Your task to perform on an android device: Search for vegetarian restaurants on Maps Image 0: 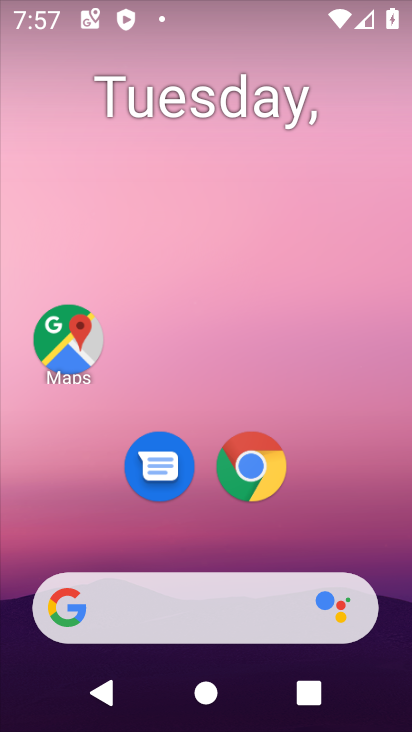
Step 0: press home button
Your task to perform on an android device: Search for vegetarian restaurants on Maps Image 1: 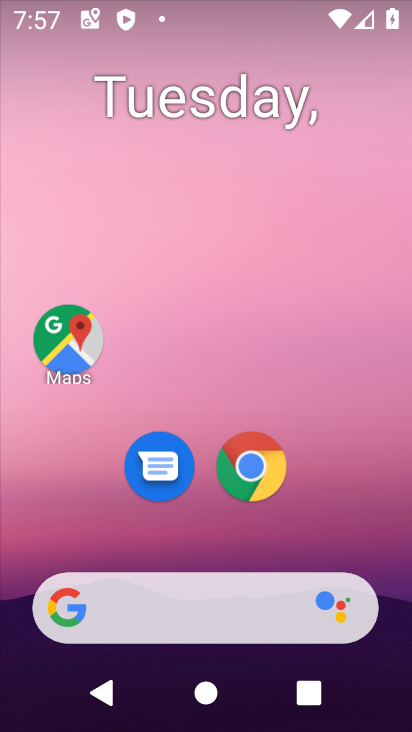
Step 1: click (68, 333)
Your task to perform on an android device: Search for vegetarian restaurants on Maps Image 2: 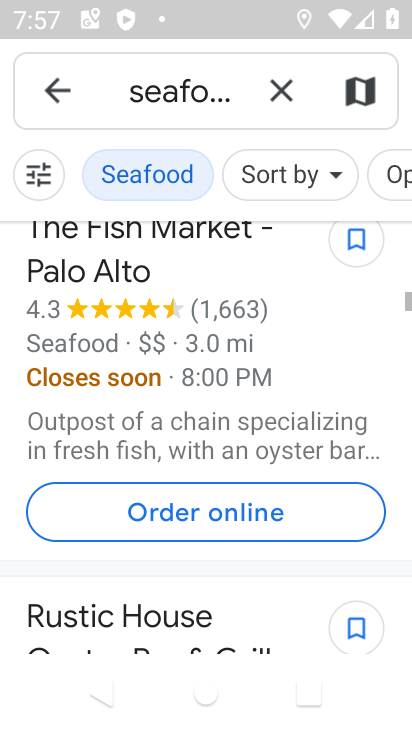
Step 2: click (280, 89)
Your task to perform on an android device: Search for vegetarian restaurants on Maps Image 3: 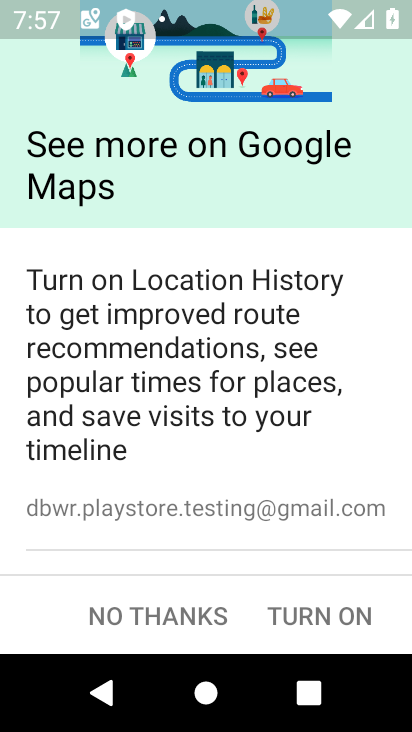
Step 3: click (323, 618)
Your task to perform on an android device: Search for vegetarian restaurants on Maps Image 4: 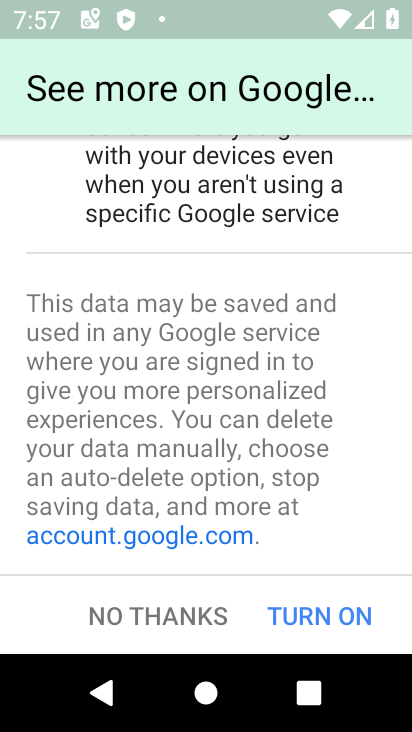
Step 4: click (325, 619)
Your task to perform on an android device: Search for vegetarian restaurants on Maps Image 5: 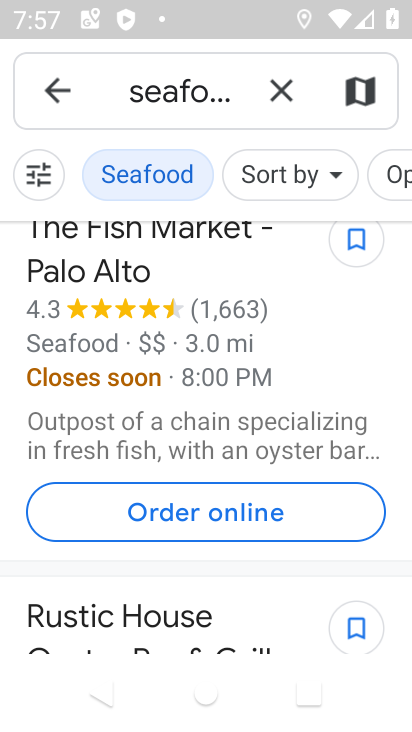
Step 5: click (280, 82)
Your task to perform on an android device: Search for vegetarian restaurants on Maps Image 6: 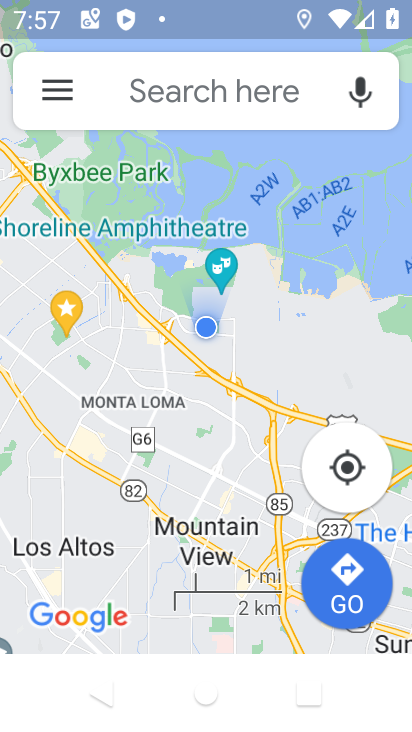
Step 6: click (207, 89)
Your task to perform on an android device: Search for vegetarian restaurants on Maps Image 7: 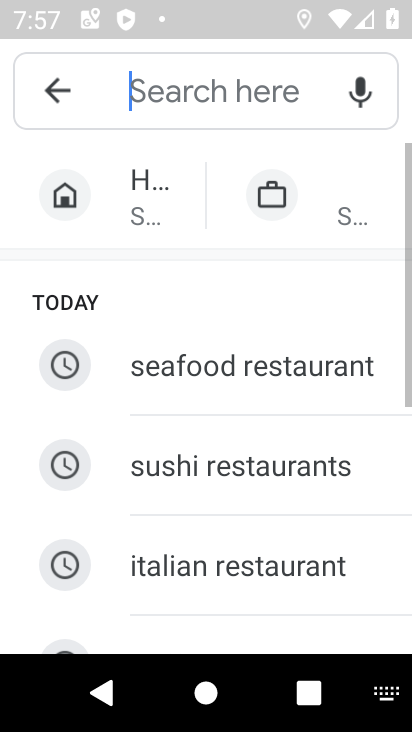
Step 7: drag from (207, 538) to (226, 235)
Your task to perform on an android device: Search for vegetarian restaurants on Maps Image 8: 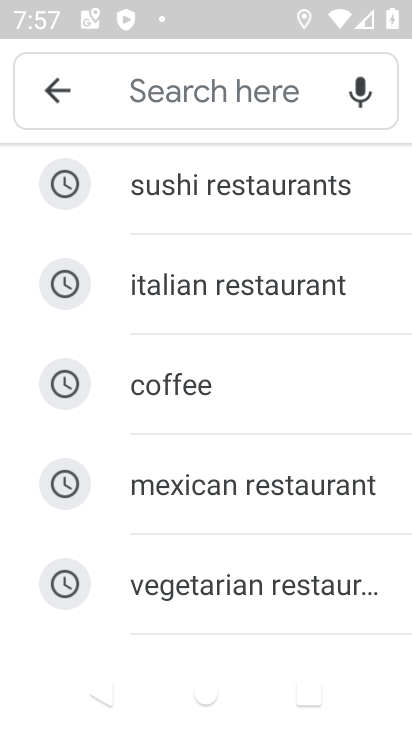
Step 8: click (197, 578)
Your task to perform on an android device: Search for vegetarian restaurants on Maps Image 9: 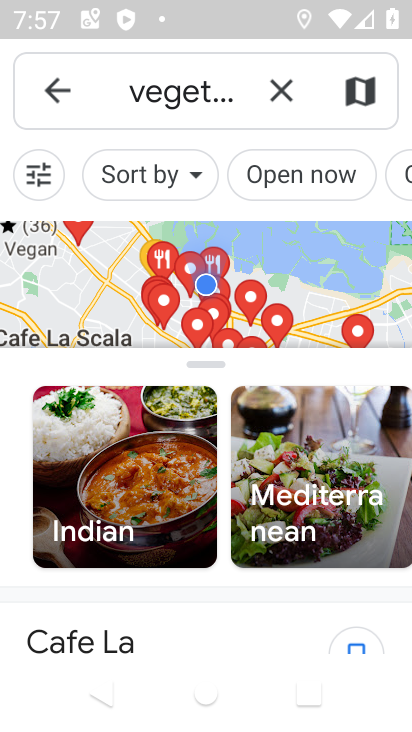
Step 9: task complete